Your task to perform on an android device: Open location settings Image 0: 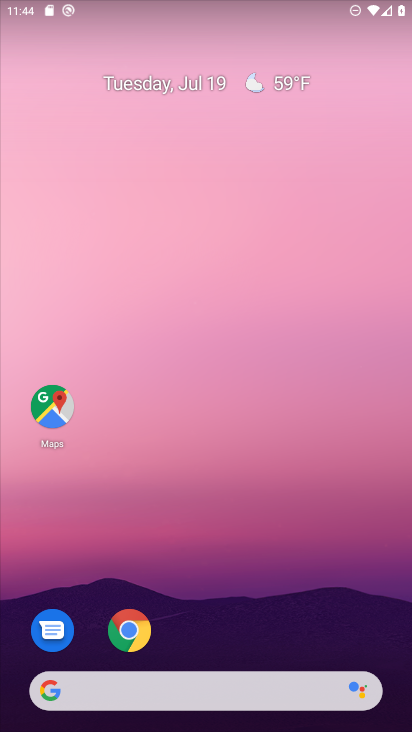
Step 0: drag from (205, 624) to (107, 5)
Your task to perform on an android device: Open location settings Image 1: 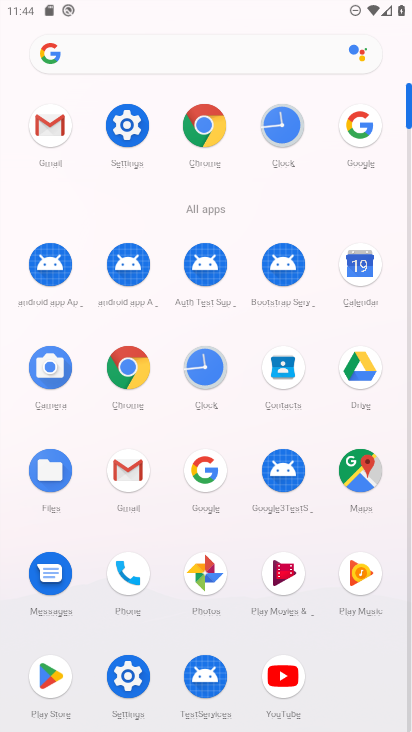
Step 1: click (132, 126)
Your task to perform on an android device: Open location settings Image 2: 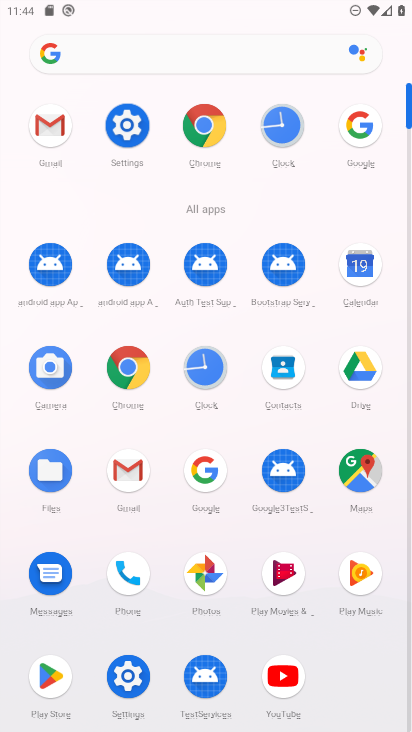
Step 2: click (121, 114)
Your task to perform on an android device: Open location settings Image 3: 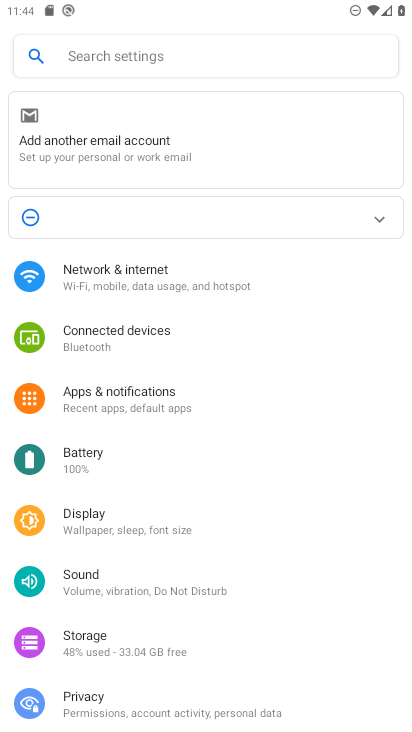
Step 3: drag from (114, 677) to (129, 290)
Your task to perform on an android device: Open location settings Image 4: 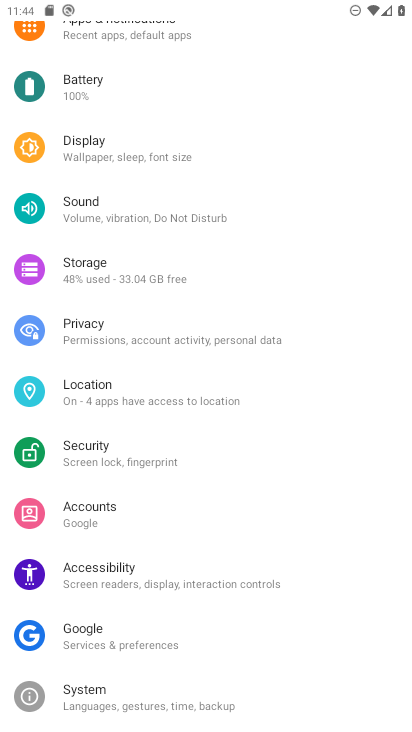
Step 4: click (94, 393)
Your task to perform on an android device: Open location settings Image 5: 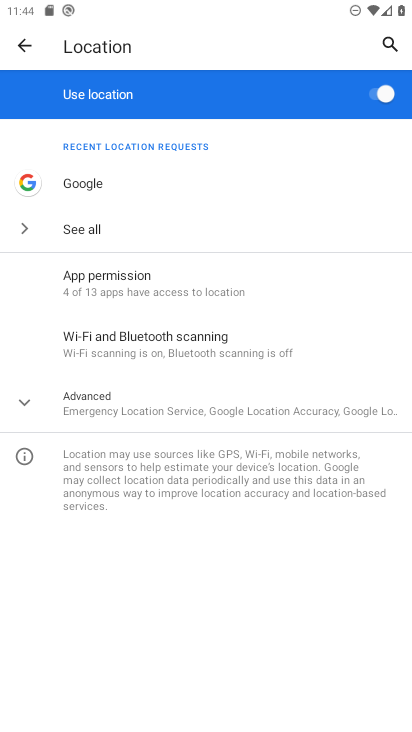
Step 5: task complete